Your task to perform on an android device: remove spam from my inbox in the gmail app Image 0: 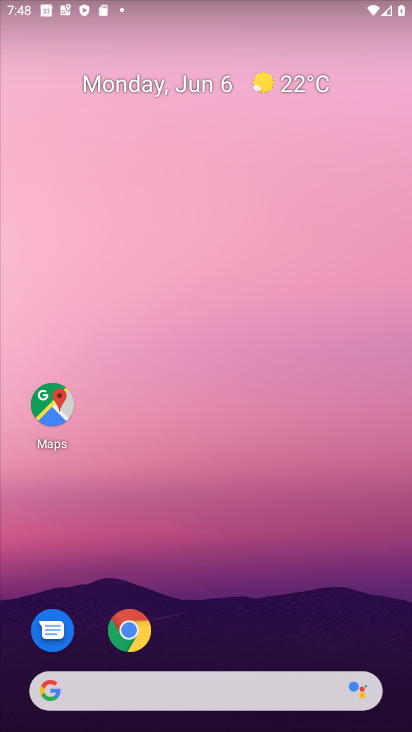
Step 0: drag from (139, 729) to (138, 111)
Your task to perform on an android device: remove spam from my inbox in the gmail app Image 1: 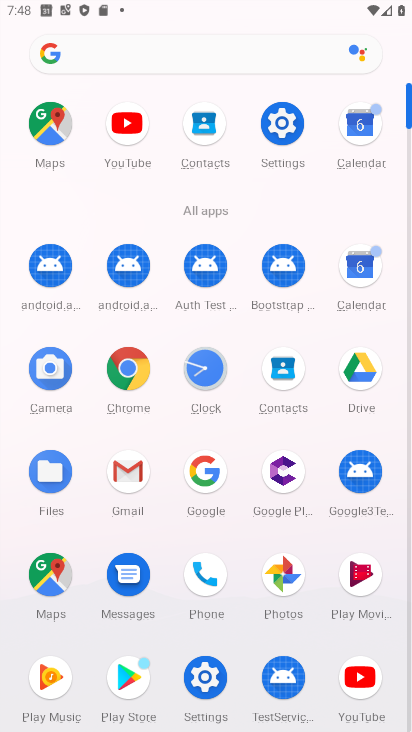
Step 1: click (131, 479)
Your task to perform on an android device: remove spam from my inbox in the gmail app Image 2: 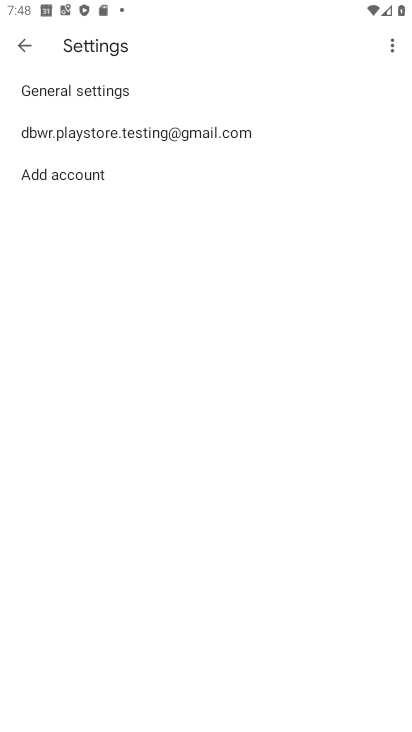
Step 2: click (18, 39)
Your task to perform on an android device: remove spam from my inbox in the gmail app Image 3: 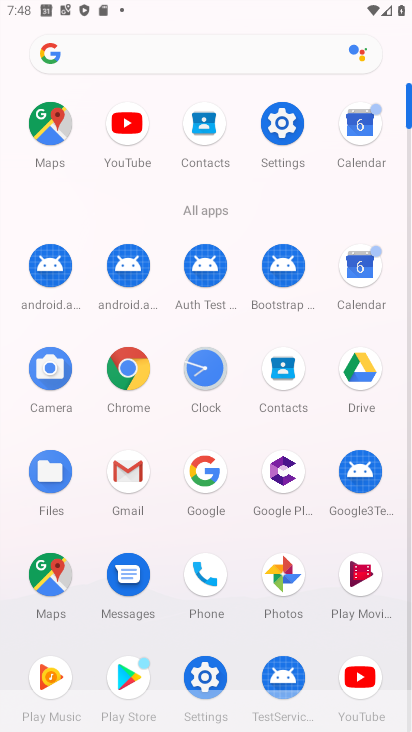
Step 3: click (109, 478)
Your task to perform on an android device: remove spam from my inbox in the gmail app Image 4: 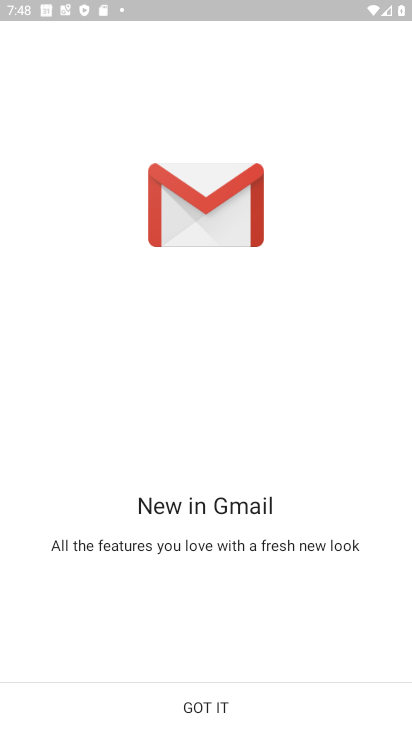
Step 4: click (233, 703)
Your task to perform on an android device: remove spam from my inbox in the gmail app Image 5: 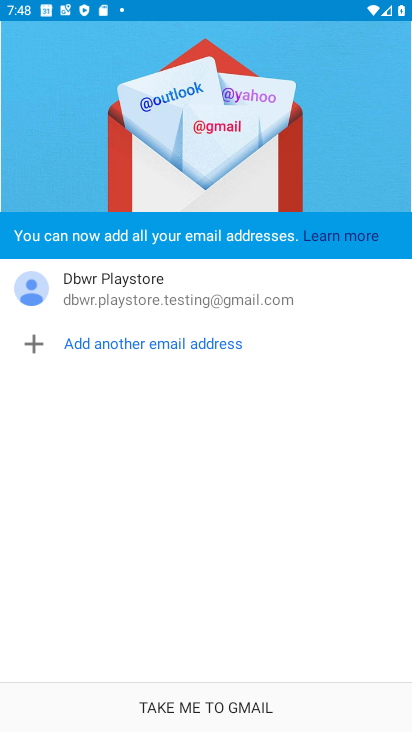
Step 5: click (161, 276)
Your task to perform on an android device: remove spam from my inbox in the gmail app Image 6: 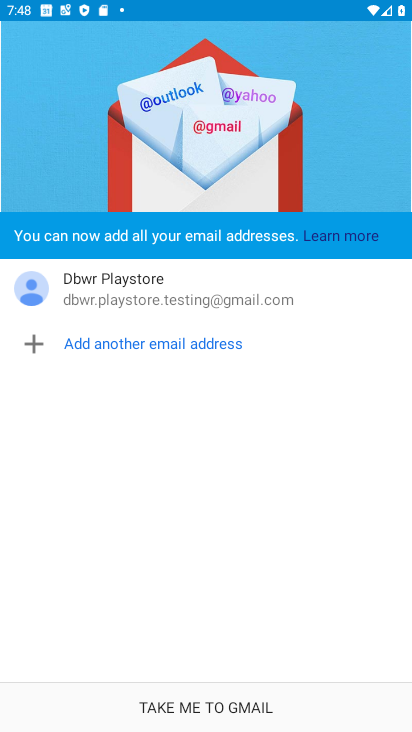
Step 6: click (236, 704)
Your task to perform on an android device: remove spam from my inbox in the gmail app Image 7: 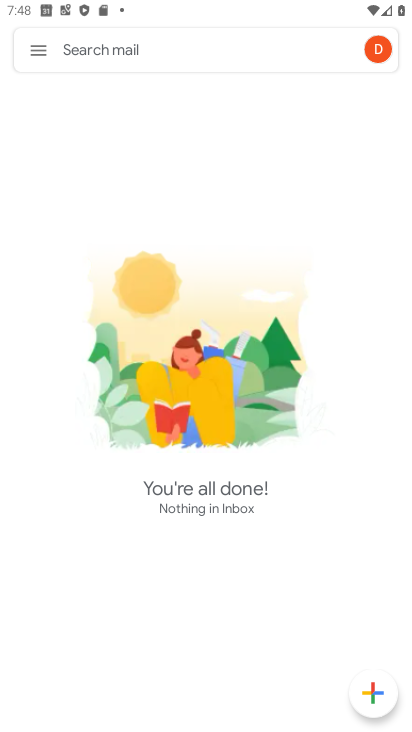
Step 7: click (35, 55)
Your task to perform on an android device: remove spam from my inbox in the gmail app Image 8: 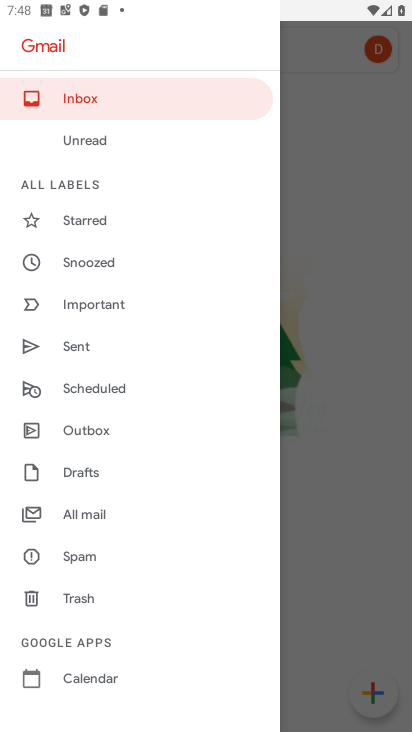
Step 8: click (86, 551)
Your task to perform on an android device: remove spam from my inbox in the gmail app Image 9: 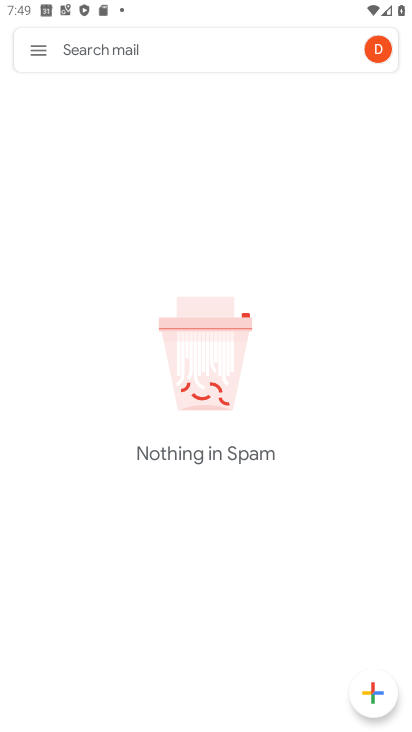
Step 9: task complete